Your task to perform on an android device: Go to wifi settings Image 0: 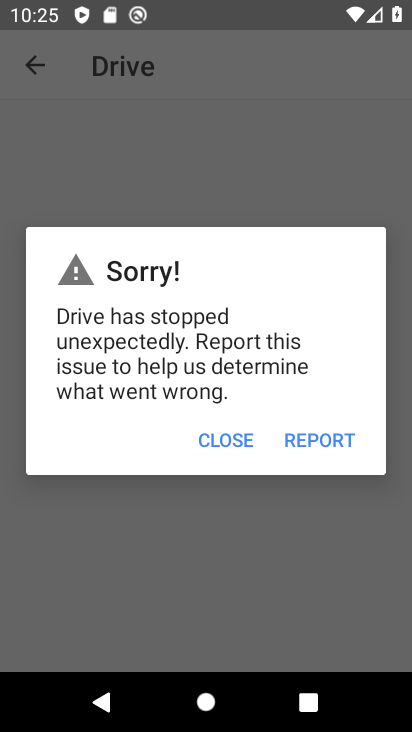
Step 0: press home button
Your task to perform on an android device: Go to wifi settings Image 1: 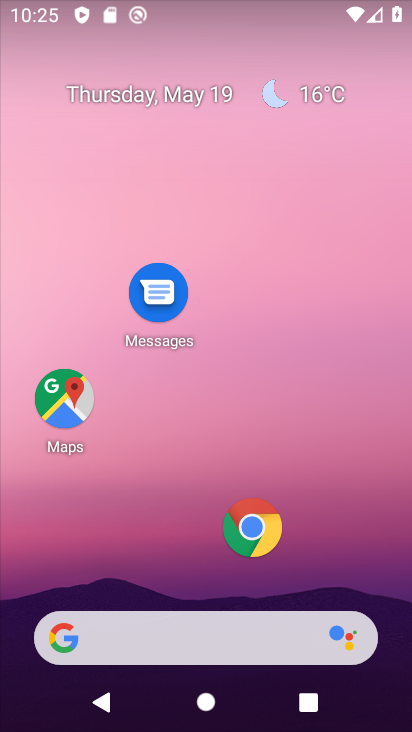
Step 1: drag from (162, 569) to (223, 89)
Your task to perform on an android device: Go to wifi settings Image 2: 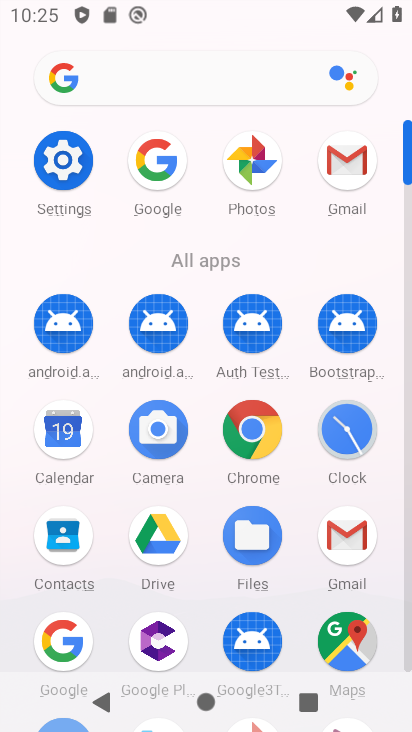
Step 2: click (77, 164)
Your task to perform on an android device: Go to wifi settings Image 3: 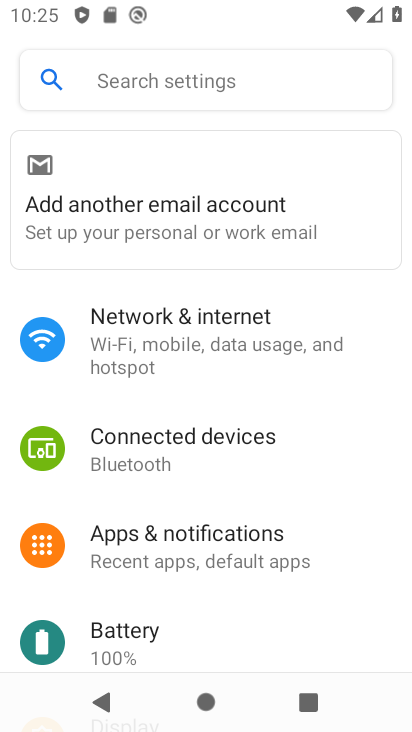
Step 3: click (154, 368)
Your task to perform on an android device: Go to wifi settings Image 4: 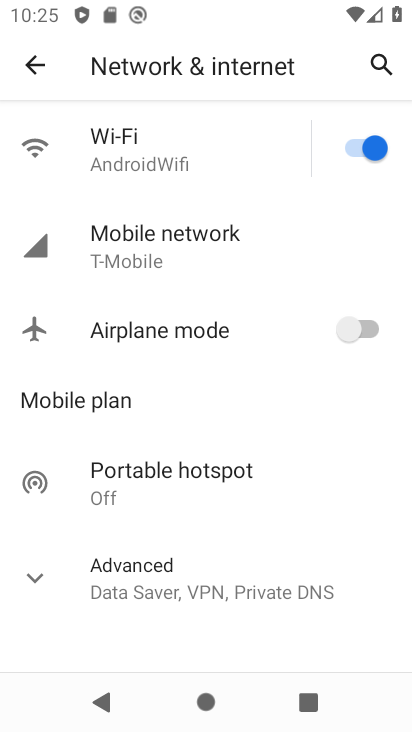
Step 4: click (142, 159)
Your task to perform on an android device: Go to wifi settings Image 5: 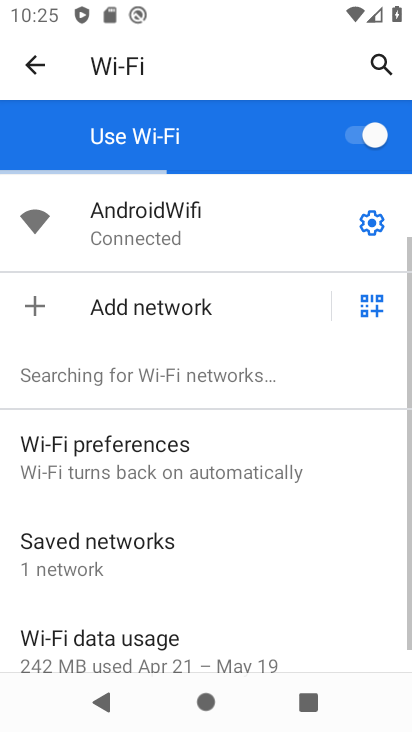
Step 5: click (364, 228)
Your task to perform on an android device: Go to wifi settings Image 6: 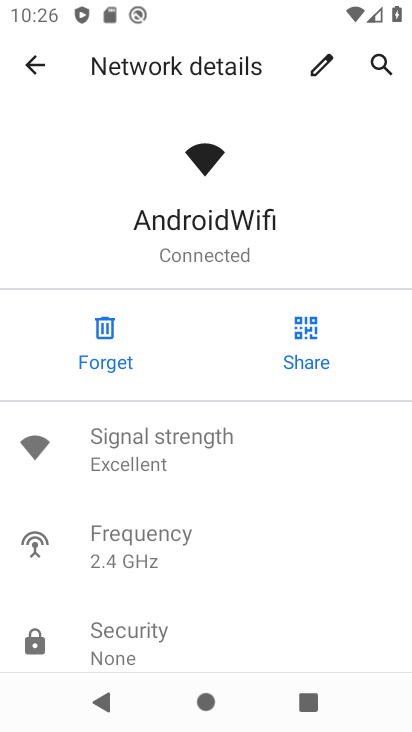
Step 6: task complete